Your task to perform on an android device: open app "Pandora - Music & Podcasts" (install if not already installed) Image 0: 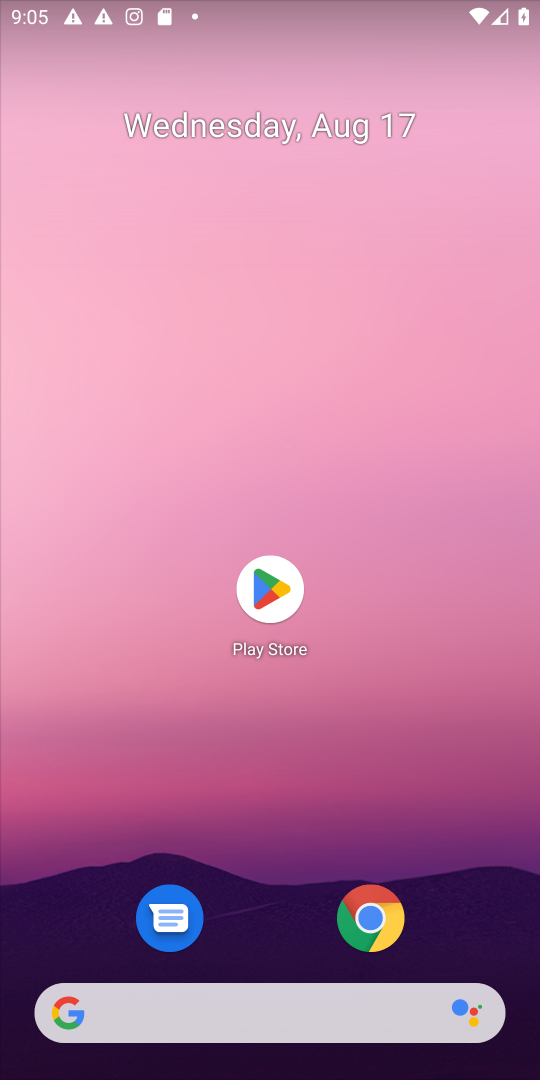
Step 0: click (260, 581)
Your task to perform on an android device: open app "Pandora - Music & Podcasts" (install if not already installed) Image 1: 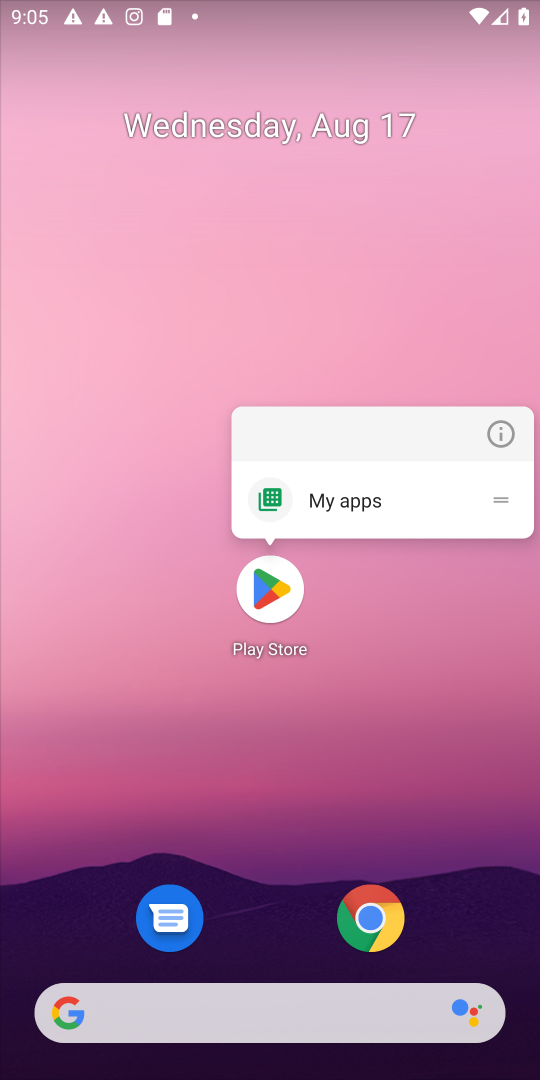
Step 1: click (272, 597)
Your task to perform on an android device: open app "Pandora - Music & Podcasts" (install if not already installed) Image 2: 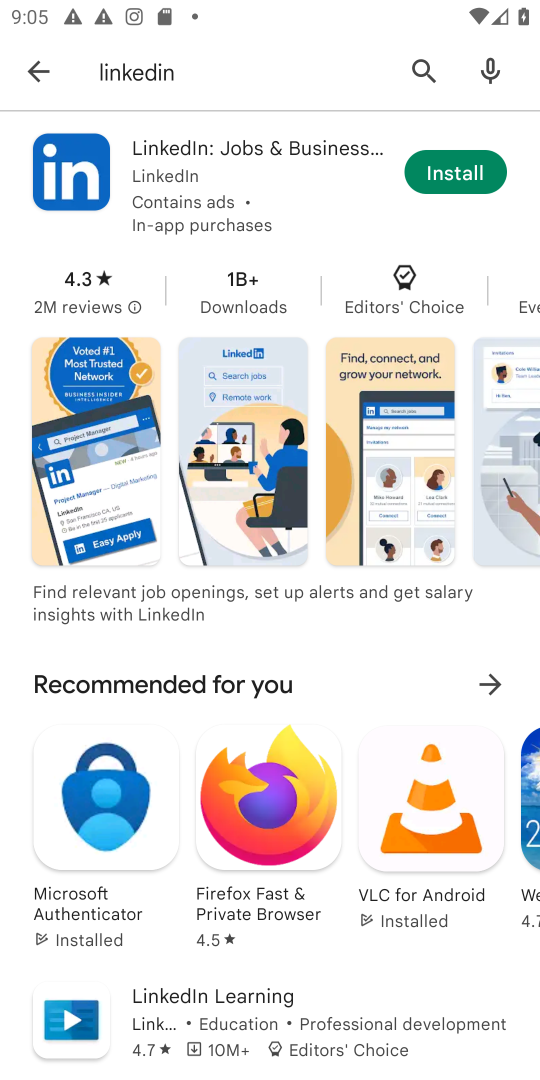
Step 2: click (420, 67)
Your task to perform on an android device: open app "Pandora - Music & Podcasts" (install if not already installed) Image 3: 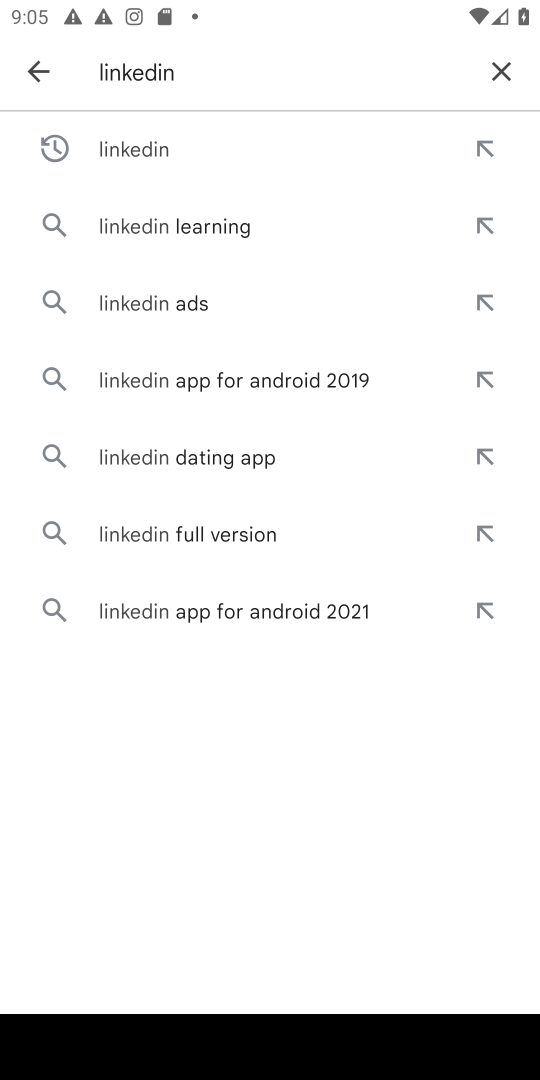
Step 3: click (505, 64)
Your task to perform on an android device: open app "Pandora - Music & Podcasts" (install if not already installed) Image 4: 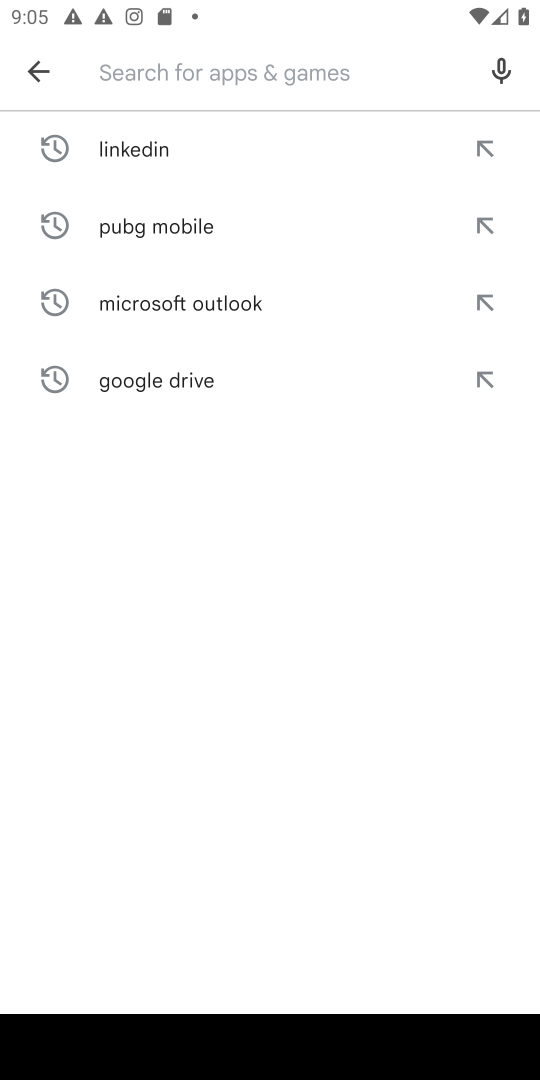
Step 4: type "Pandora - Music & Podcasts"
Your task to perform on an android device: open app "Pandora - Music & Podcasts" (install if not already installed) Image 5: 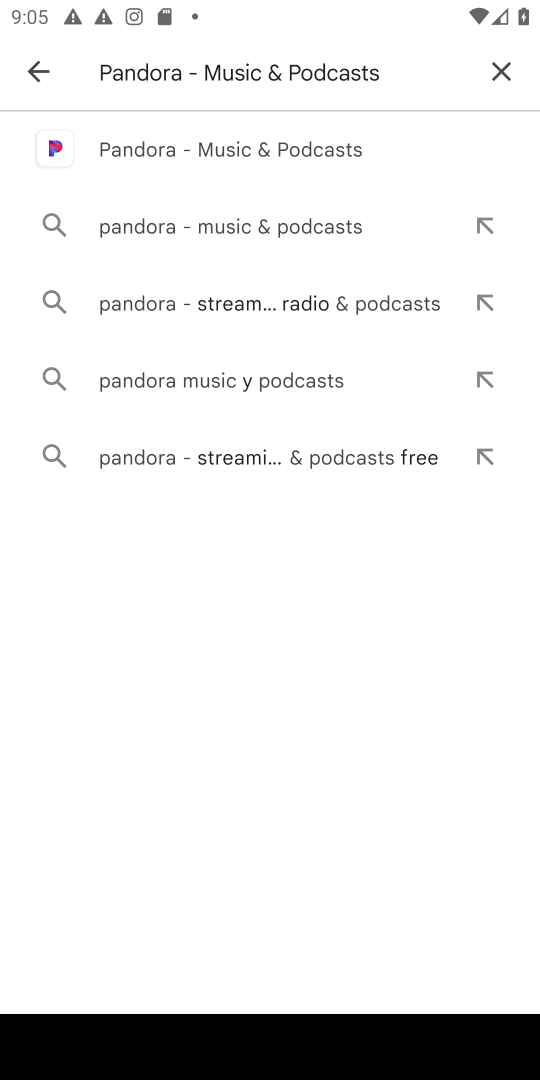
Step 5: click (235, 136)
Your task to perform on an android device: open app "Pandora - Music & Podcasts" (install if not already installed) Image 6: 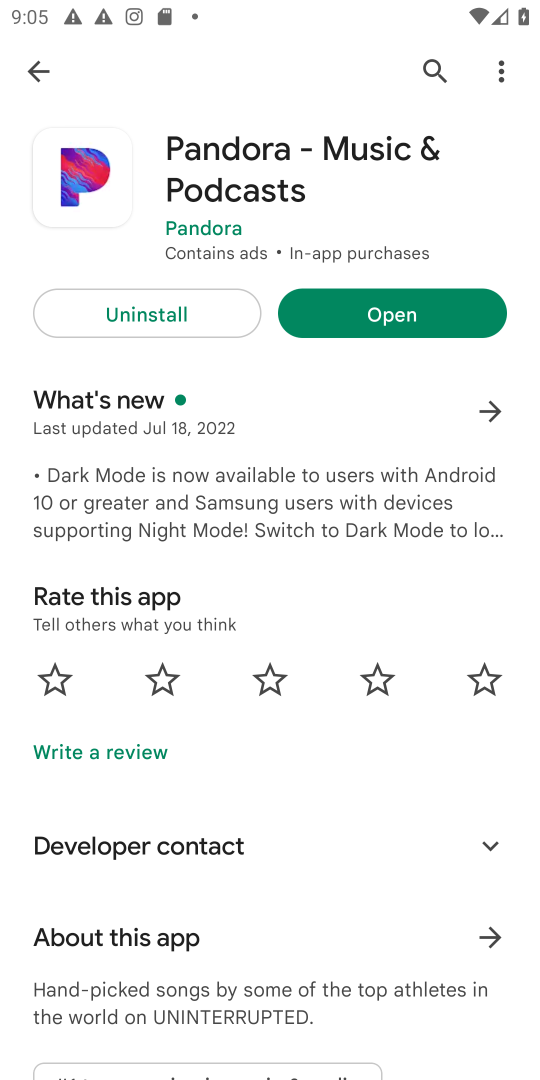
Step 6: click (403, 315)
Your task to perform on an android device: open app "Pandora - Music & Podcasts" (install if not already installed) Image 7: 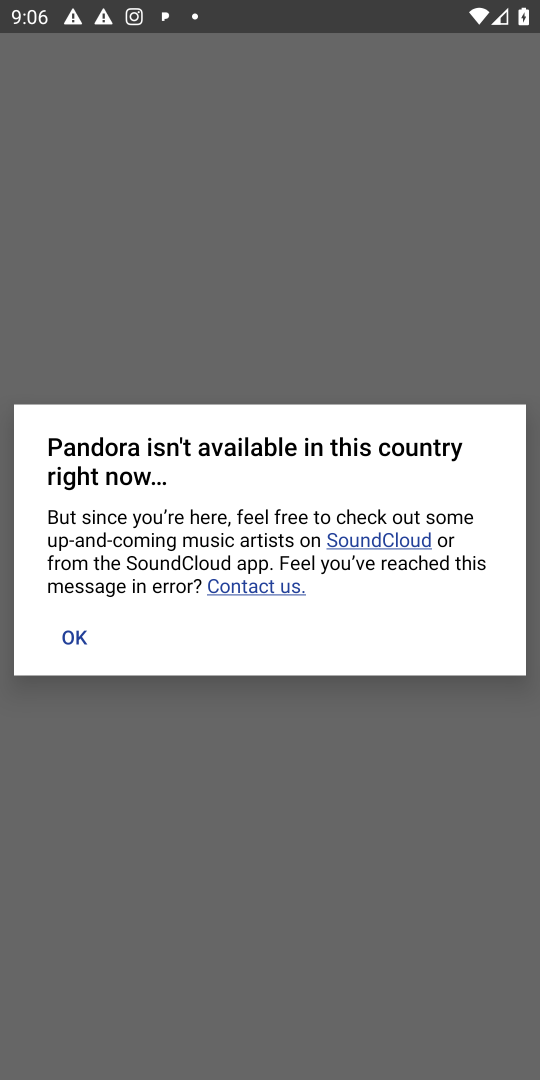
Step 7: task complete